Your task to perform on an android device: Search for sushi restaurants on Maps Image 0: 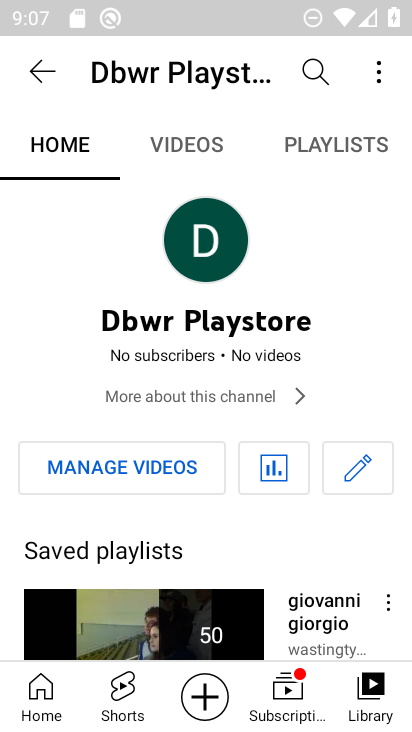
Step 0: press home button
Your task to perform on an android device: Search for sushi restaurants on Maps Image 1: 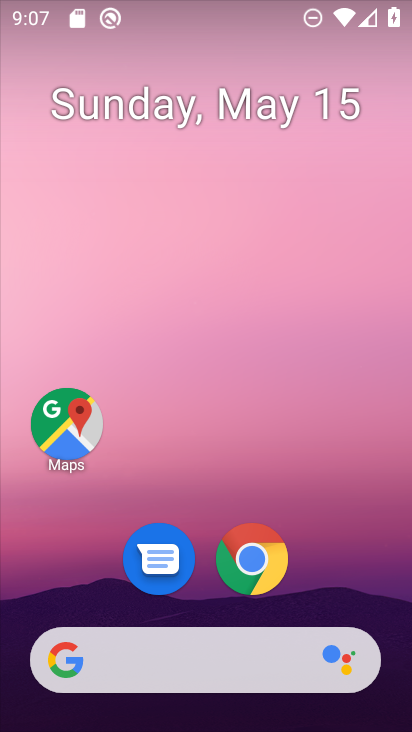
Step 1: click (67, 438)
Your task to perform on an android device: Search for sushi restaurants on Maps Image 2: 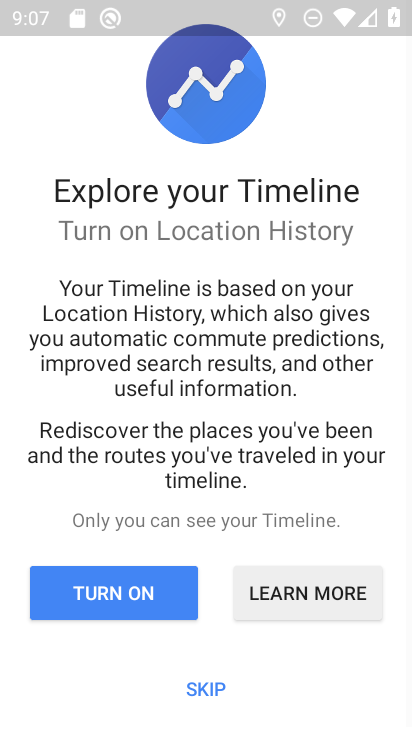
Step 2: click (232, 682)
Your task to perform on an android device: Search for sushi restaurants on Maps Image 3: 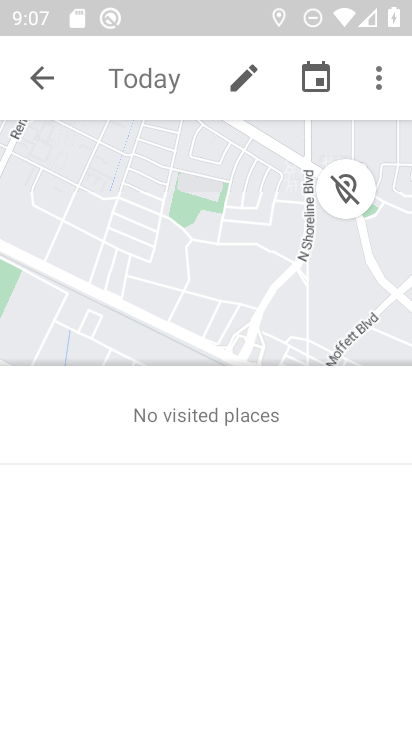
Step 3: click (59, 74)
Your task to perform on an android device: Search for sushi restaurants on Maps Image 4: 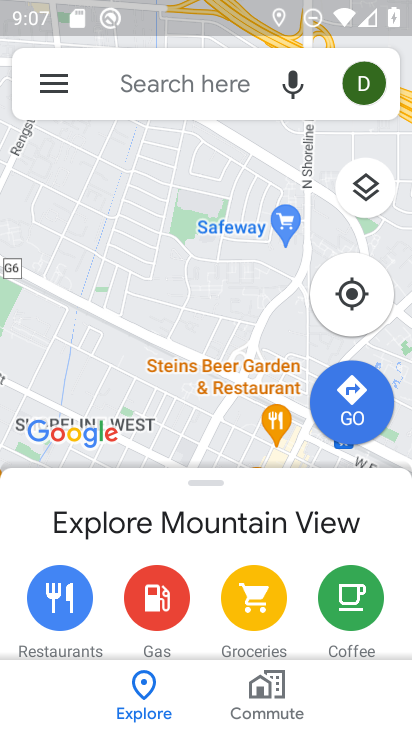
Step 4: click (174, 83)
Your task to perform on an android device: Search for sushi restaurants on Maps Image 5: 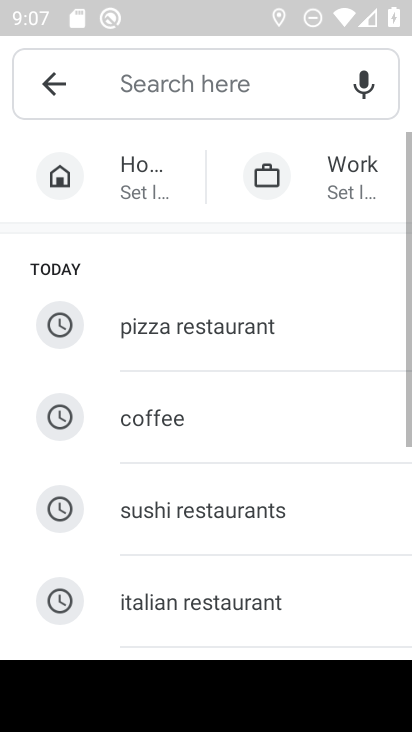
Step 5: click (196, 497)
Your task to perform on an android device: Search for sushi restaurants on Maps Image 6: 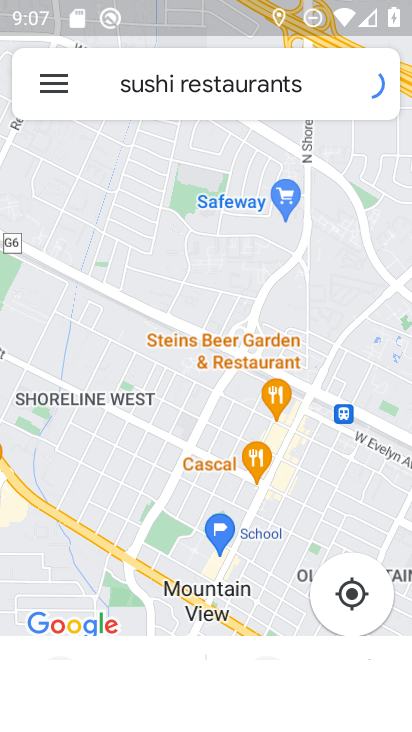
Step 6: task complete